Your task to perform on an android device: Open calendar and show me the first week of next month Image 0: 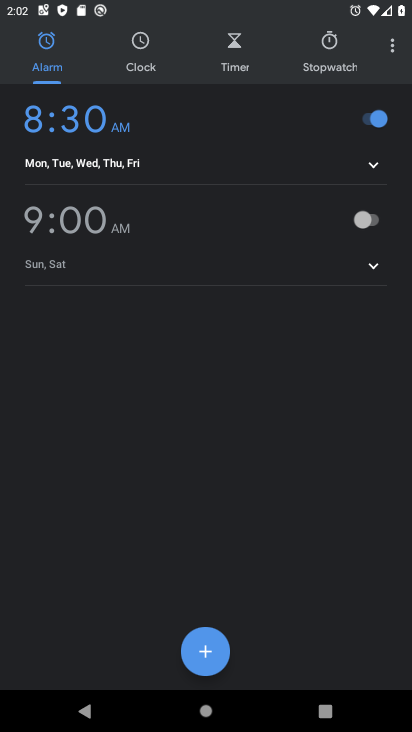
Step 0: click (343, 459)
Your task to perform on an android device: Open calendar and show me the first week of next month Image 1: 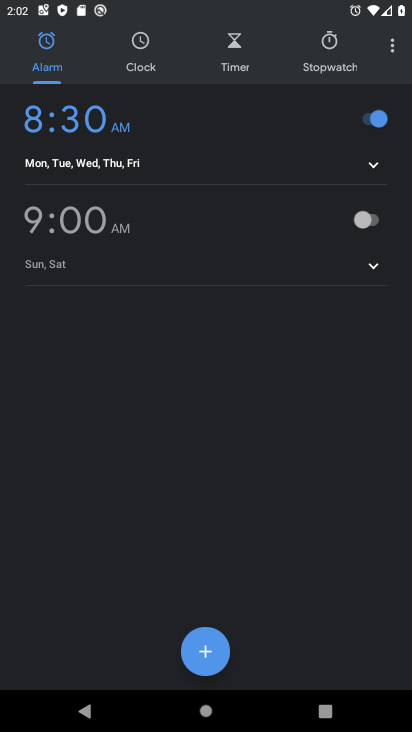
Step 1: press home button
Your task to perform on an android device: Open calendar and show me the first week of next month Image 2: 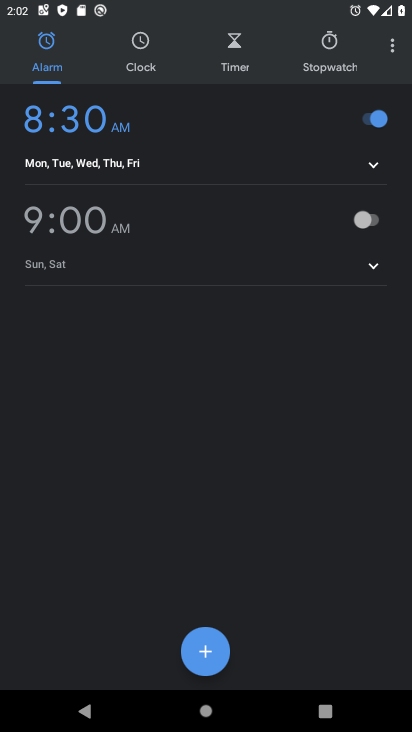
Step 2: drag from (148, 577) to (266, 69)
Your task to perform on an android device: Open calendar and show me the first week of next month Image 3: 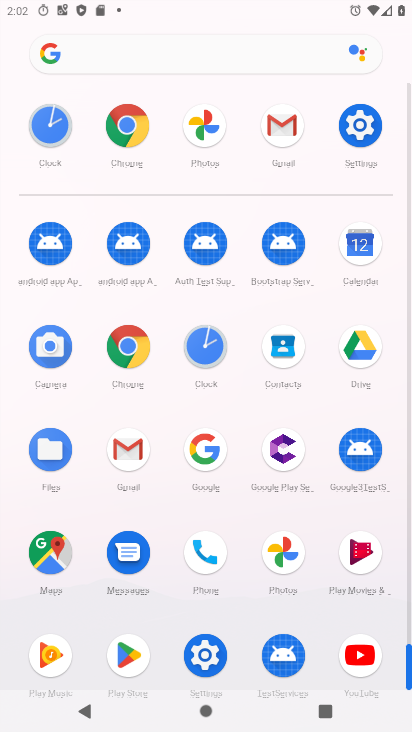
Step 3: click (353, 245)
Your task to perform on an android device: Open calendar and show me the first week of next month Image 4: 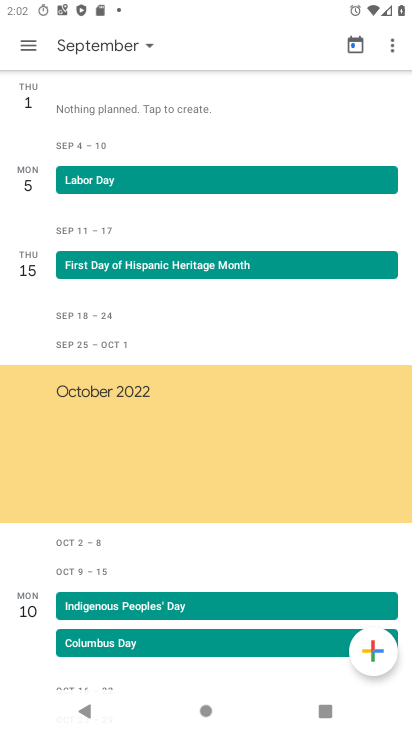
Step 4: click (121, 47)
Your task to perform on an android device: Open calendar and show me the first week of next month Image 5: 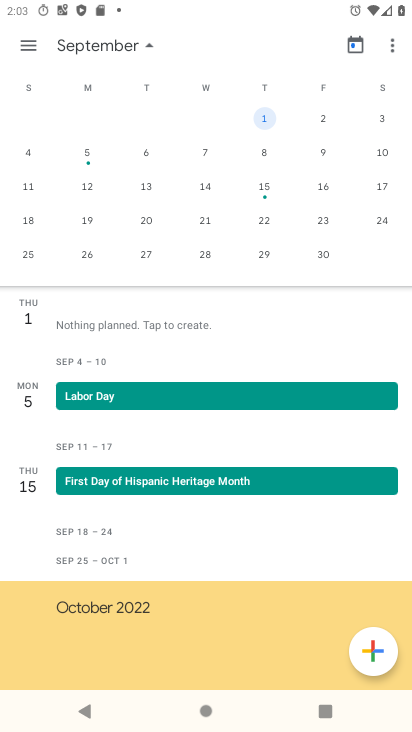
Step 5: drag from (358, 161) to (409, 196)
Your task to perform on an android device: Open calendar and show me the first week of next month Image 6: 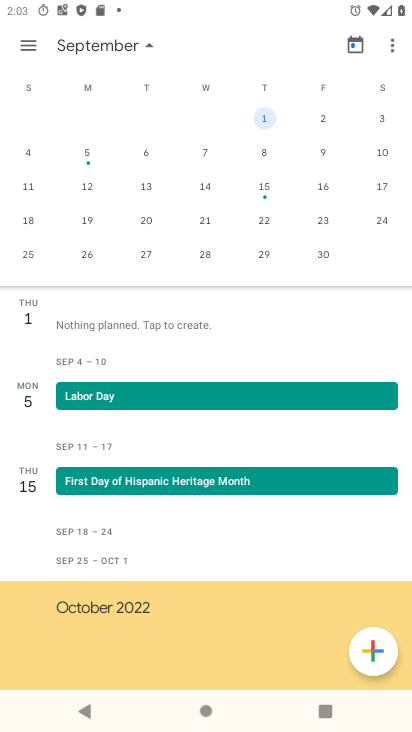
Step 6: drag from (57, 195) to (400, 186)
Your task to perform on an android device: Open calendar and show me the first week of next month Image 7: 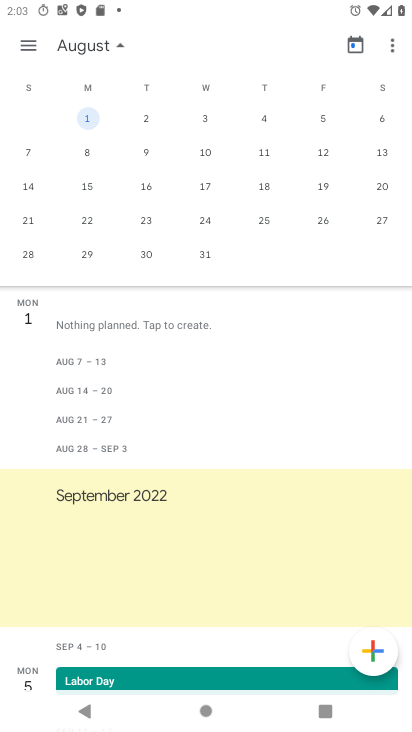
Step 7: drag from (60, 185) to (259, 175)
Your task to perform on an android device: Open calendar and show me the first week of next month Image 8: 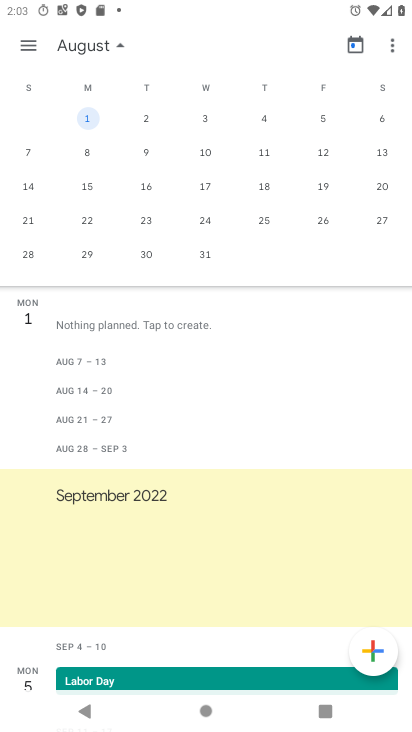
Step 8: click (258, 120)
Your task to perform on an android device: Open calendar and show me the first week of next month Image 9: 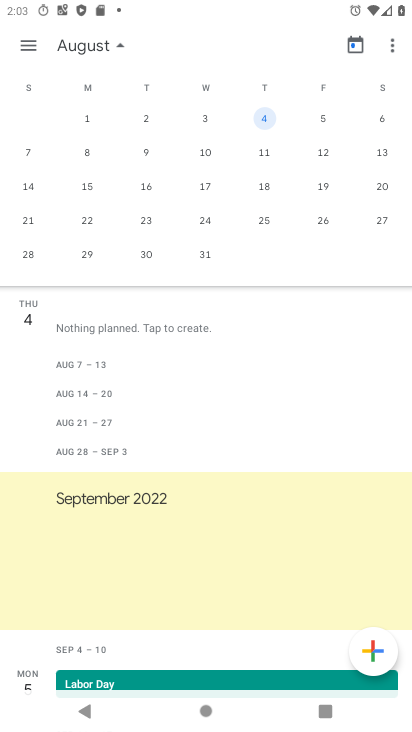
Step 9: task complete